Your task to perform on an android device: delete the emails in spam in the gmail app Image 0: 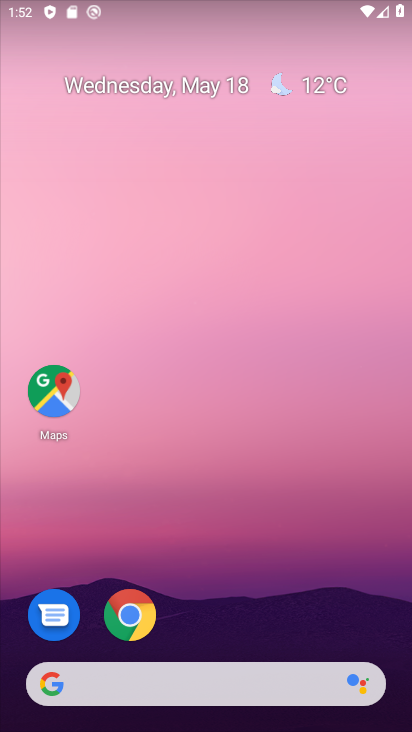
Step 0: drag from (361, 545) to (250, 19)
Your task to perform on an android device: delete the emails in spam in the gmail app Image 1: 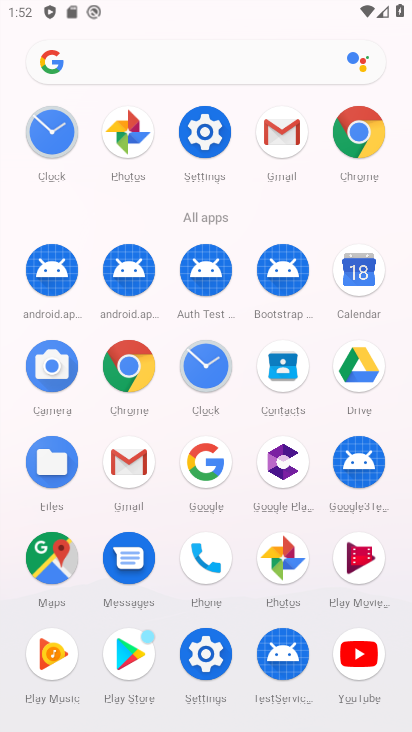
Step 1: click (118, 461)
Your task to perform on an android device: delete the emails in spam in the gmail app Image 2: 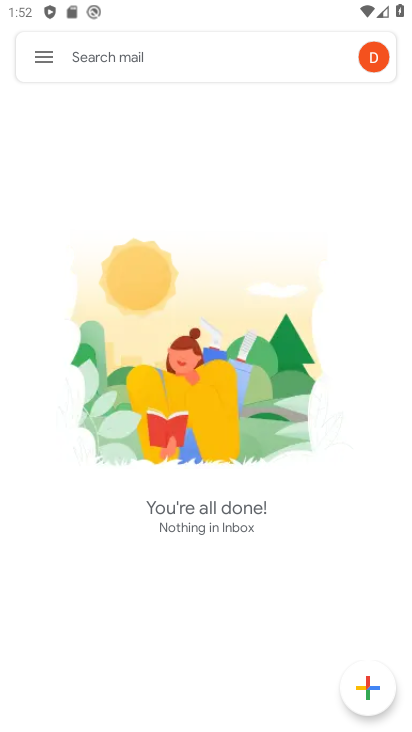
Step 2: click (36, 49)
Your task to perform on an android device: delete the emails in spam in the gmail app Image 3: 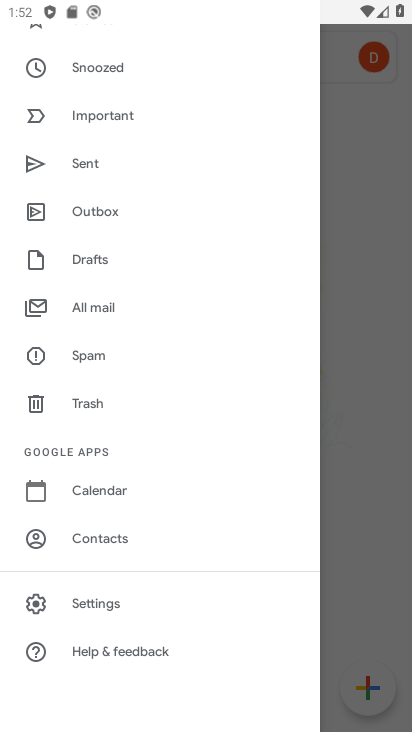
Step 3: click (118, 354)
Your task to perform on an android device: delete the emails in spam in the gmail app Image 4: 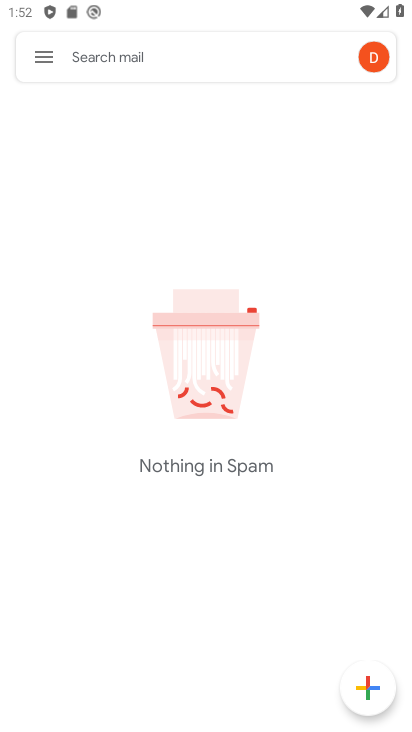
Step 4: task complete